Your task to perform on an android device: turn on priority inbox in the gmail app Image 0: 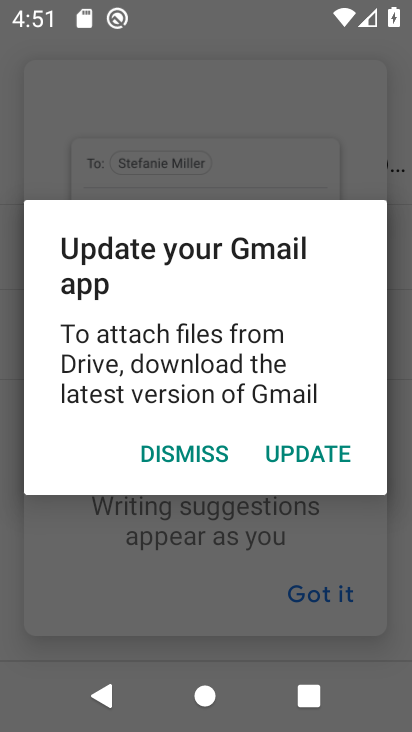
Step 0: press home button
Your task to perform on an android device: turn on priority inbox in the gmail app Image 1: 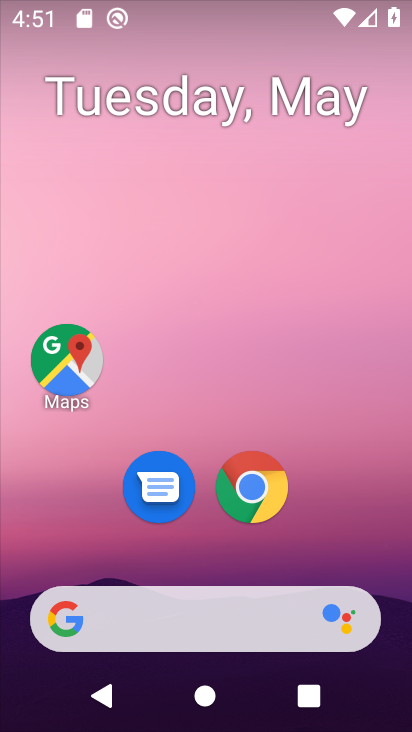
Step 1: drag from (337, 534) to (330, 105)
Your task to perform on an android device: turn on priority inbox in the gmail app Image 2: 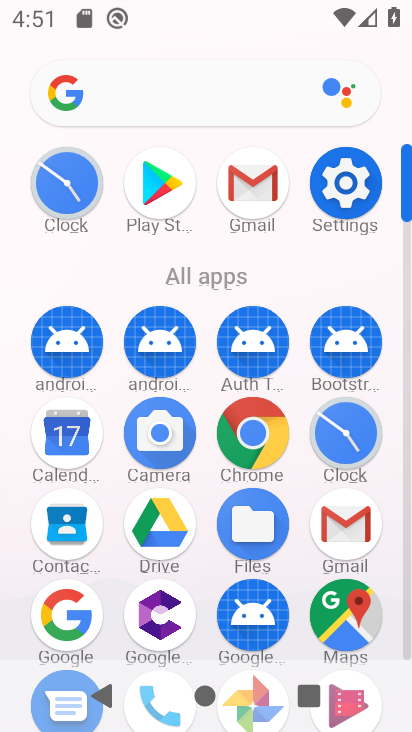
Step 2: click (257, 177)
Your task to perform on an android device: turn on priority inbox in the gmail app Image 3: 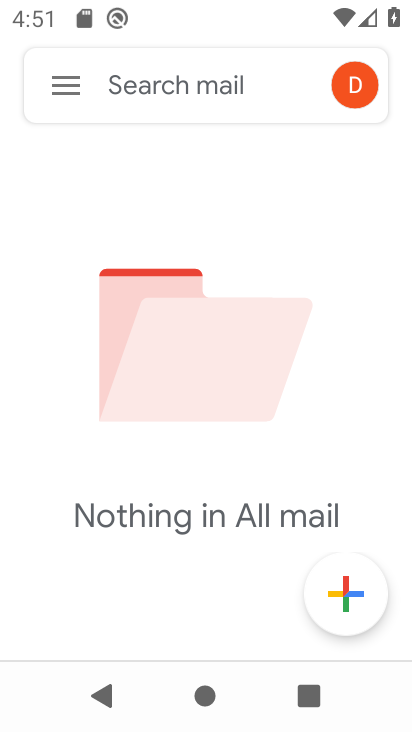
Step 3: click (70, 94)
Your task to perform on an android device: turn on priority inbox in the gmail app Image 4: 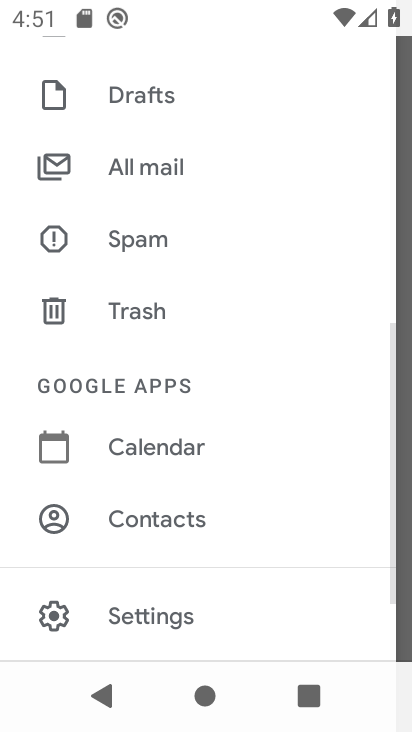
Step 4: click (141, 631)
Your task to perform on an android device: turn on priority inbox in the gmail app Image 5: 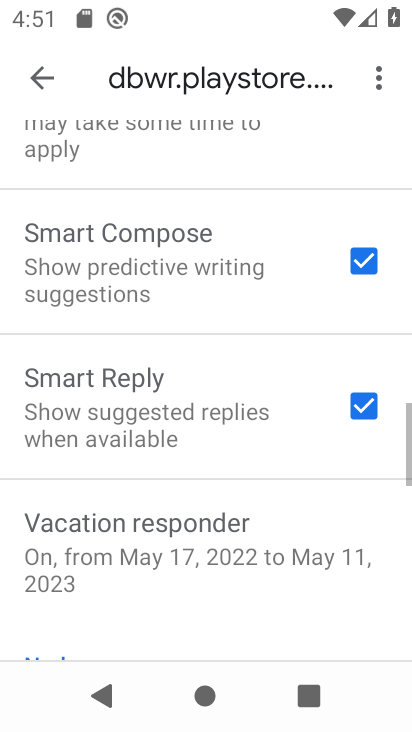
Step 5: task complete